Your task to perform on an android device: make emails show in primary in the gmail app Image 0: 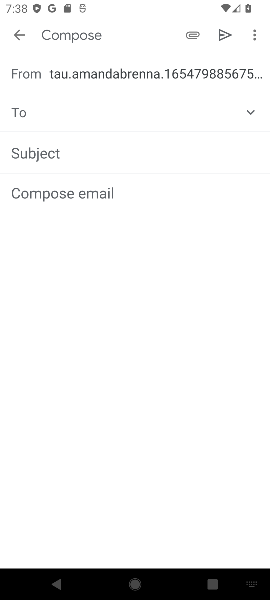
Step 0: press home button
Your task to perform on an android device: make emails show in primary in the gmail app Image 1: 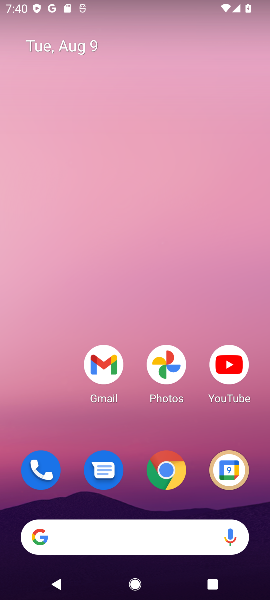
Step 1: click (94, 371)
Your task to perform on an android device: make emails show in primary in the gmail app Image 2: 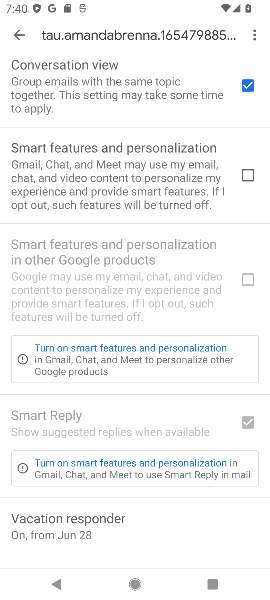
Step 2: drag from (161, 97) to (134, 589)
Your task to perform on an android device: make emails show in primary in the gmail app Image 3: 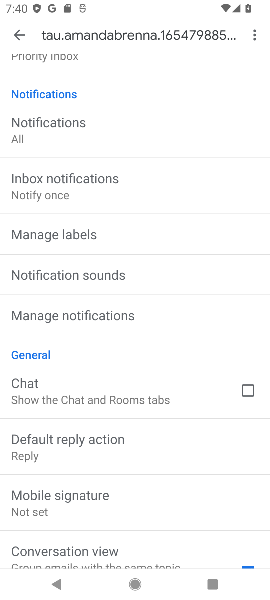
Step 3: drag from (154, 96) to (140, 581)
Your task to perform on an android device: make emails show in primary in the gmail app Image 4: 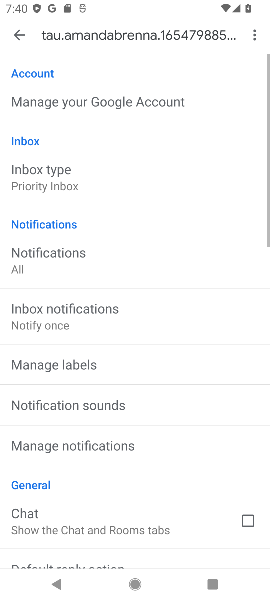
Step 4: click (71, 176)
Your task to perform on an android device: make emails show in primary in the gmail app Image 5: 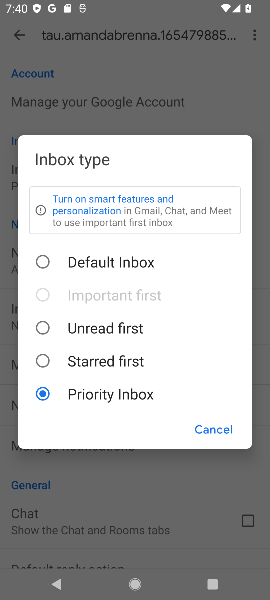
Step 5: click (143, 261)
Your task to perform on an android device: make emails show in primary in the gmail app Image 6: 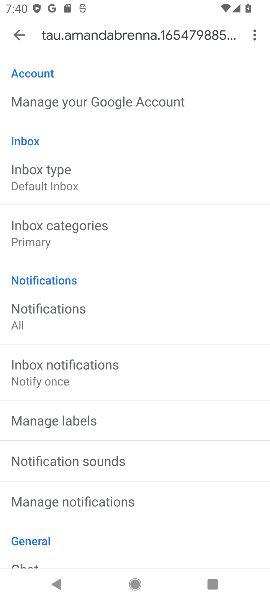
Step 6: task complete